Your task to perform on an android device: open device folders in google photos Image 0: 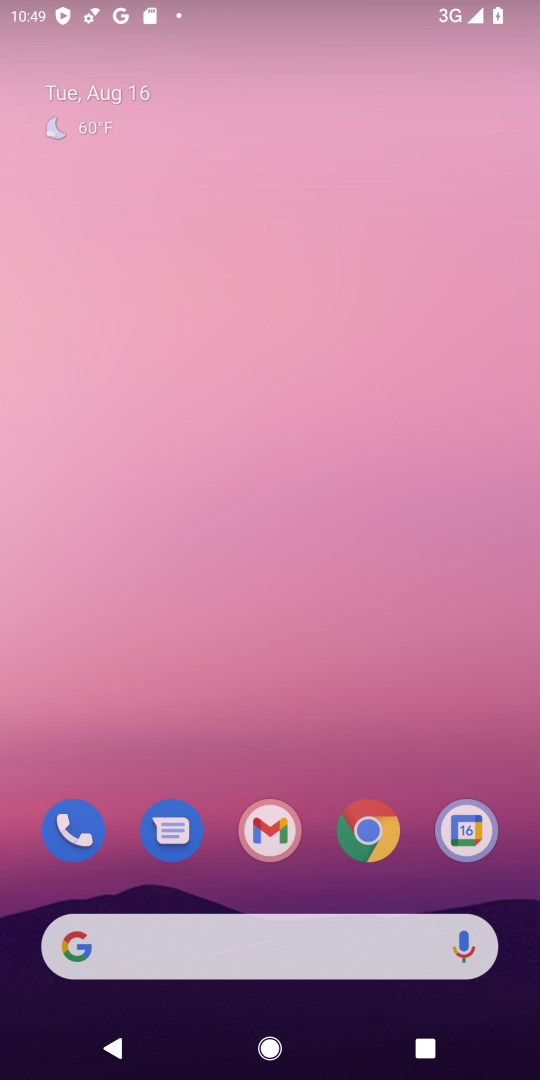
Step 0: press home button
Your task to perform on an android device: open device folders in google photos Image 1: 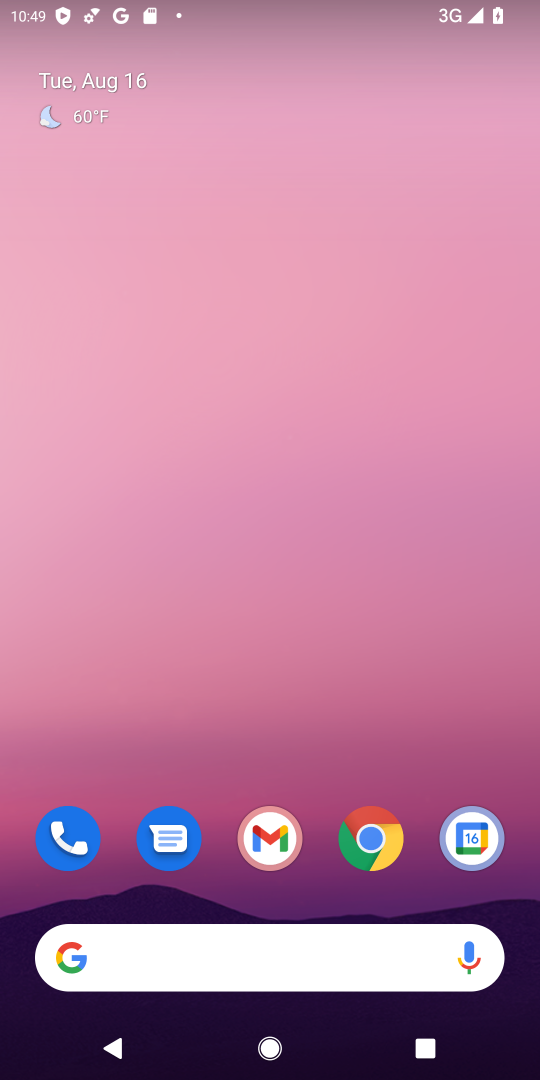
Step 1: drag from (331, 888) to (250, 35)
Your task to perform on an android device: open device folders in google photos Image 2: 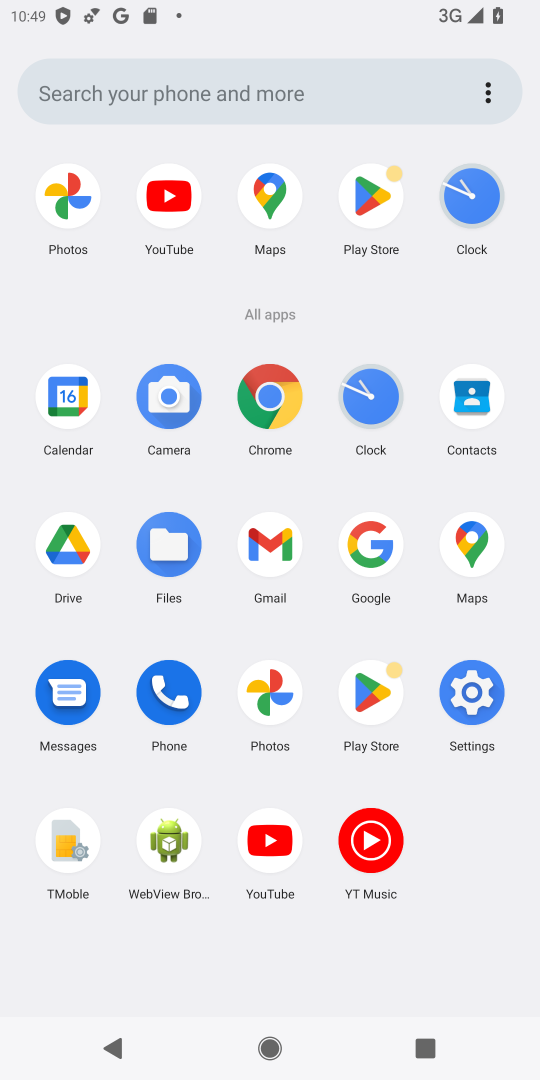
Step 2: click (67, 206)
Your task to perform on an android device: open device folders in google photos Image 3: 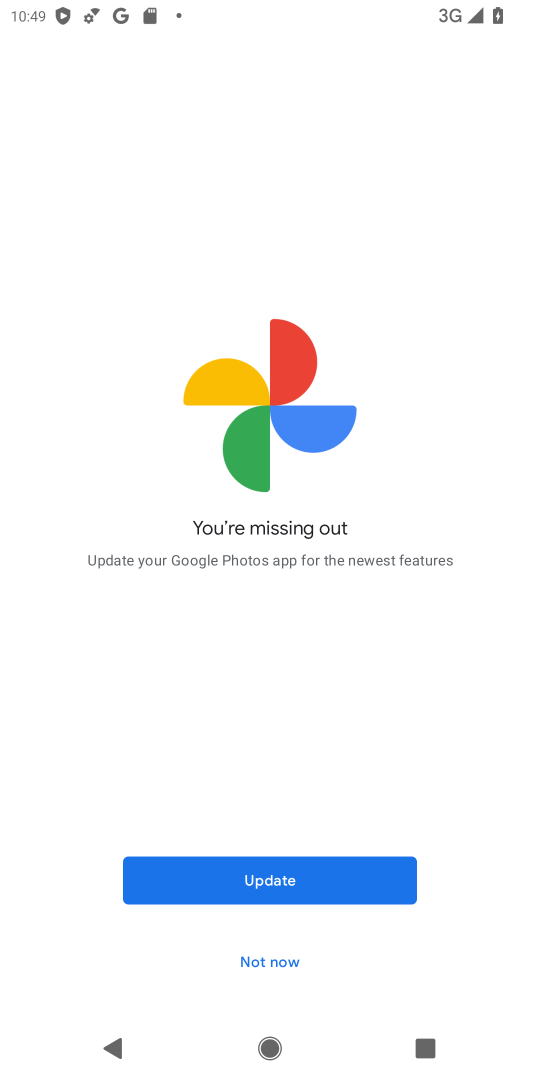
Step 3: click (279, 874)
Your task to perform on an android device: open device folders in google photos Image 4: 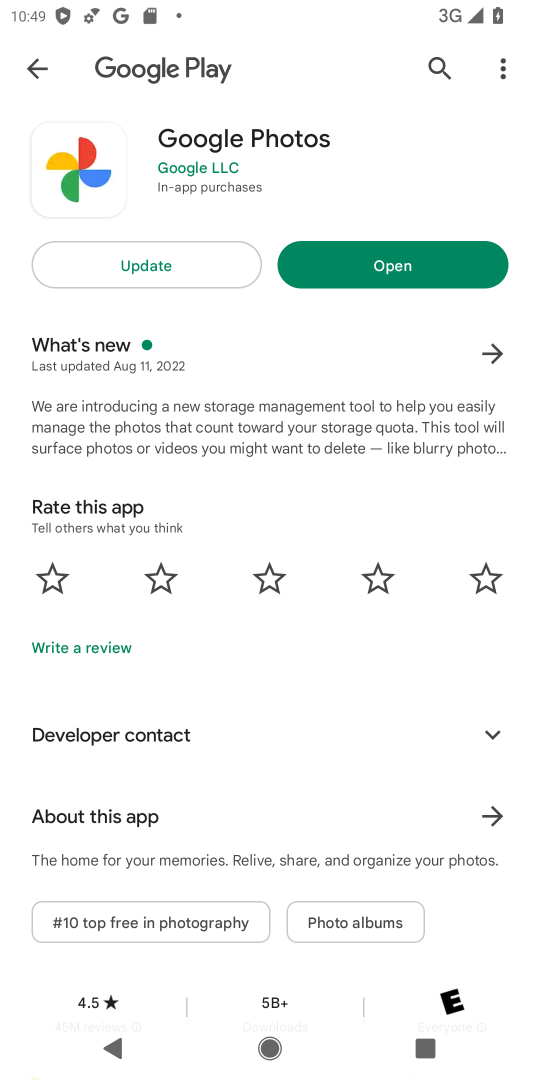
Step 4: click (173, 264)
Your task to perform on an android device: open device folders in google photos Image 5: 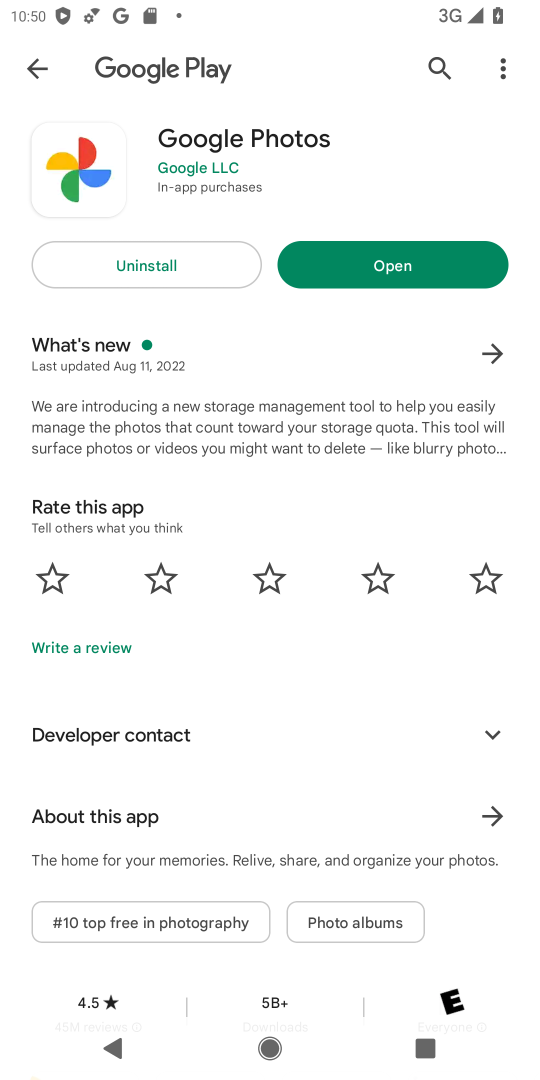
Step 5: click (334, 277)
Your task to perform on an android device: open device folders in google photos Image 6: 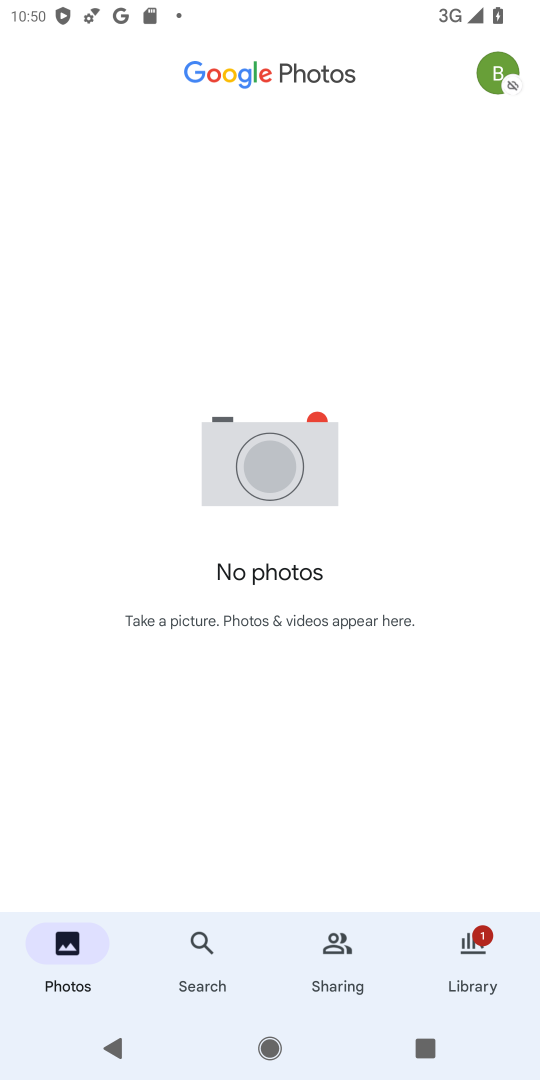
Step 6: click (477, 960)
Your task to perform on an android device: open device folders in google photos Image 7: 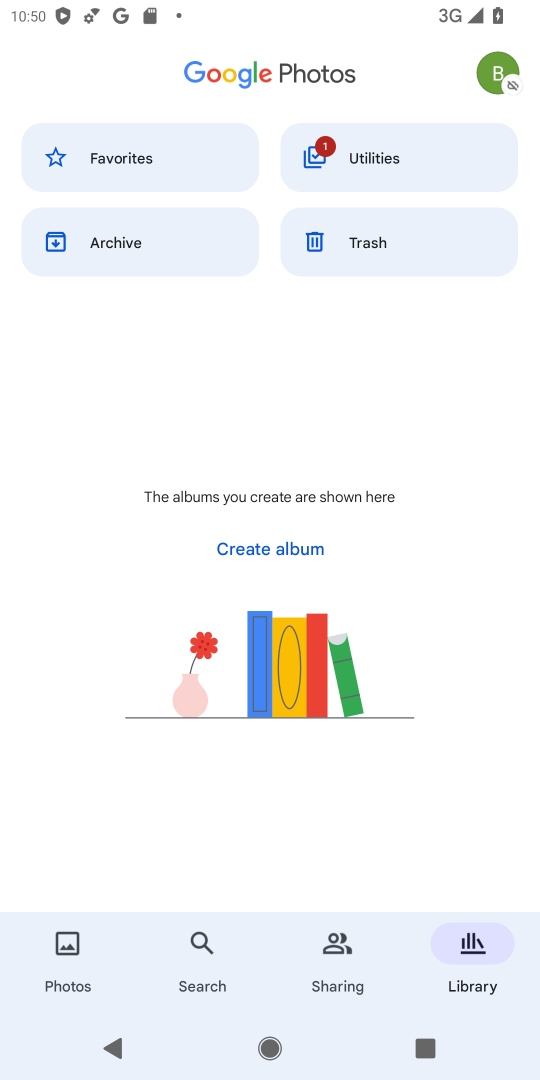
Step 7: click (489, 61)
Your task to perform on an android device: open device folders in google photos Image 8: 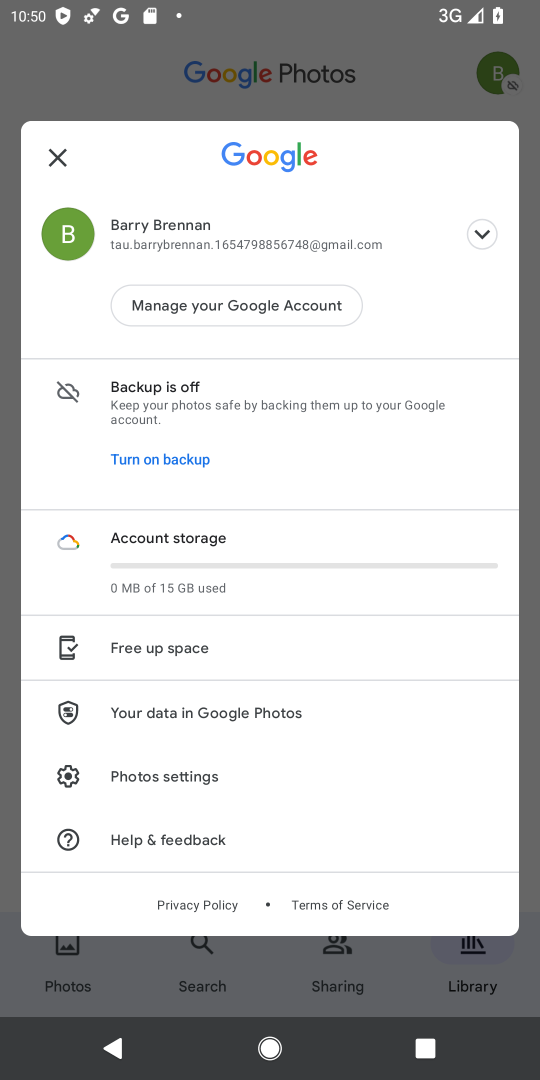
Step 8: click (57, 165)
Your task to perform on an android device: open device folders in google photos Image 9: 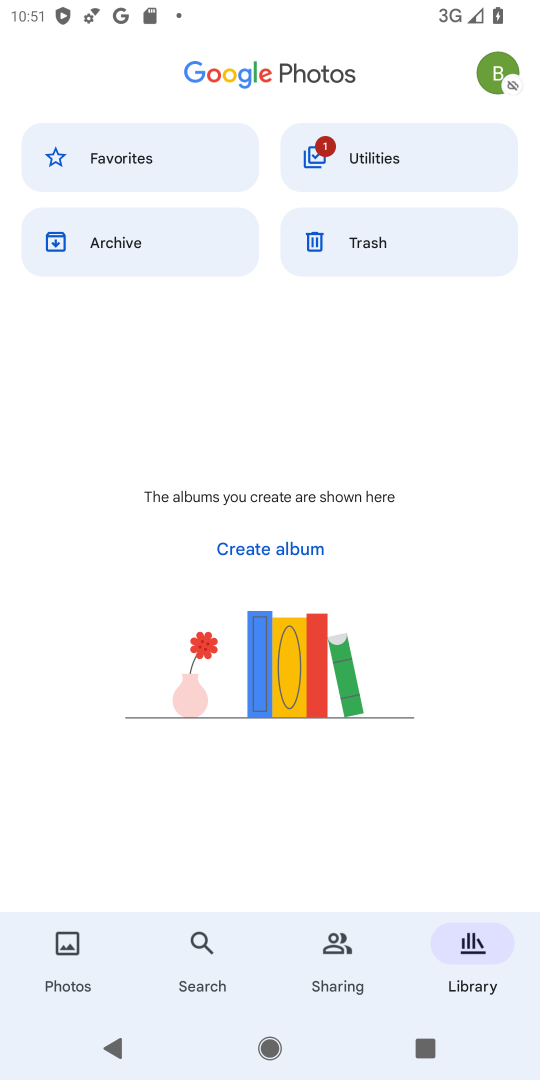
Step 9: task complete